Your task to perform on an android device: Search for sushi restaurants on Maps Image 0: 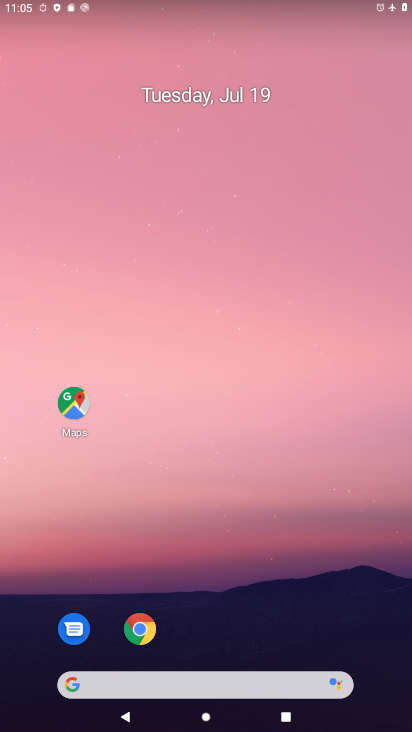
Step 0: click (205, 228)
Your task to perform on an android device: Search for sushi restaurants on Maps Image 1: 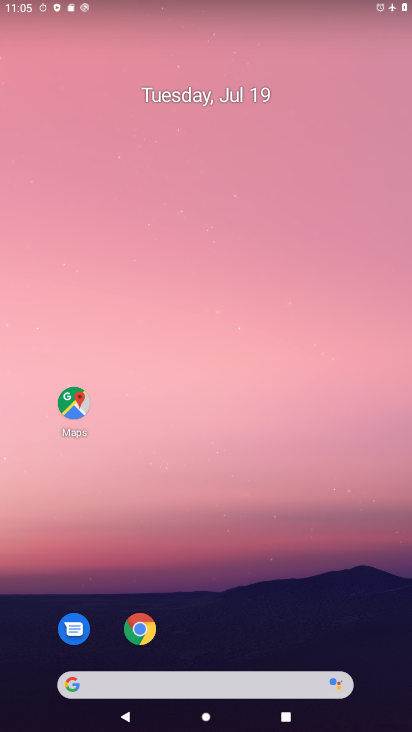
Step 1: drag from (231, 634) to (180, 152)
Your task to perform on an android device: Search for sushi restaurants on Maps Image 2: 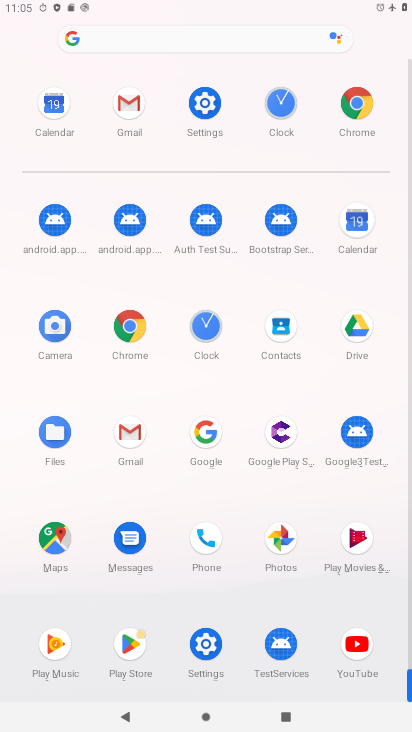
Step 2: click (50, 538)
Your task to perform on an android device: Search for sushi restaurants on Maps Image 3: 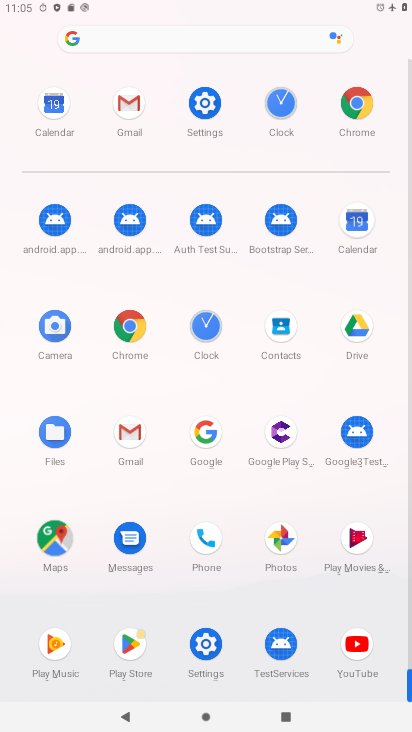
Step 3: click (51, 538)
Your task to perform on an android device: Search for sushi restaurants on Maps Image 4: 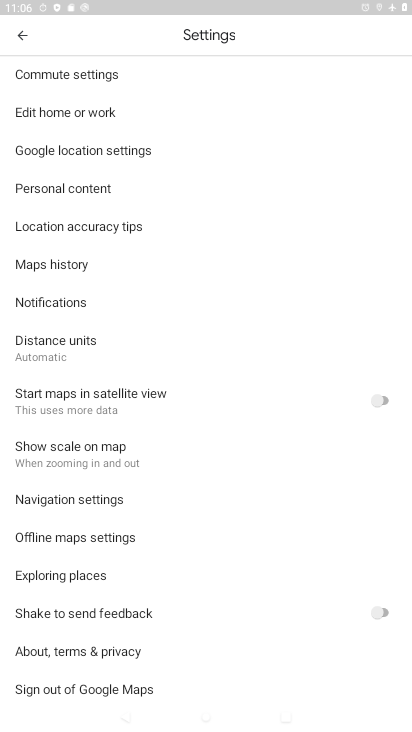
Step 4: click (22, 35)
Your task to perform on an android device: Search for sushi restaurants on Maps Image 5: 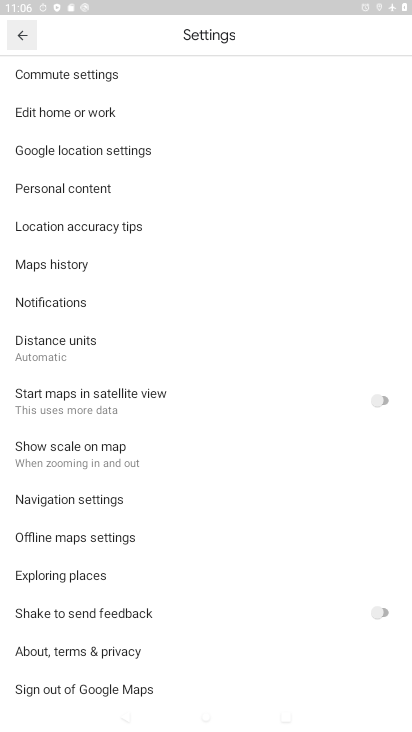
Step 5: click (22, 35)
Your task to perform on an android device: Search for sushi restaurants on Maps Image 6: 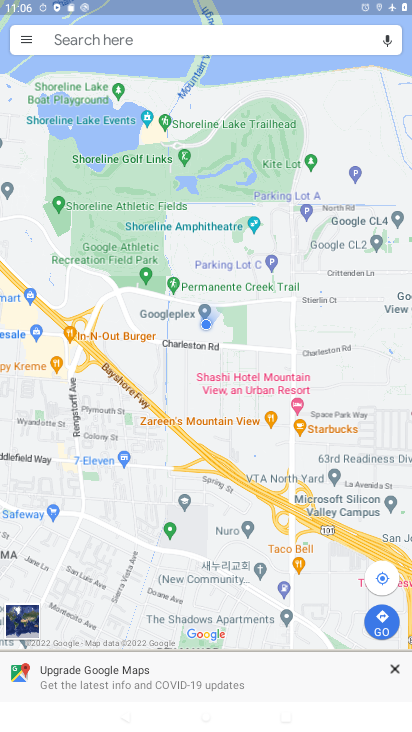
Step 6: click (72, 38)
Your task to perform on an android device: Search for sushi restaurants on Maps Image 7: 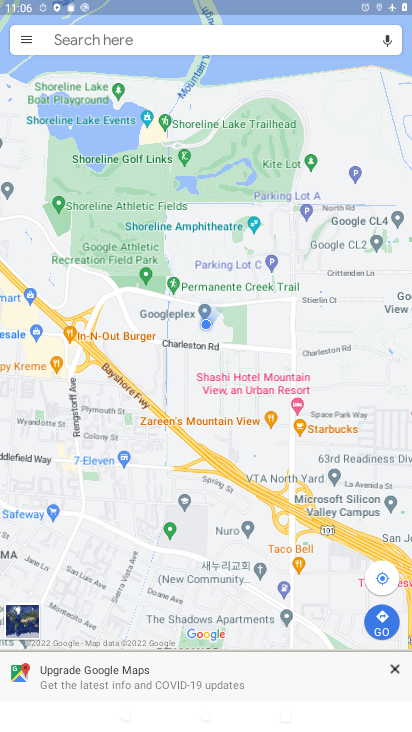
Step 7: click (70, 36)
Your task to perform on an android device: Search for sushi restaurants on Maps Image 8: 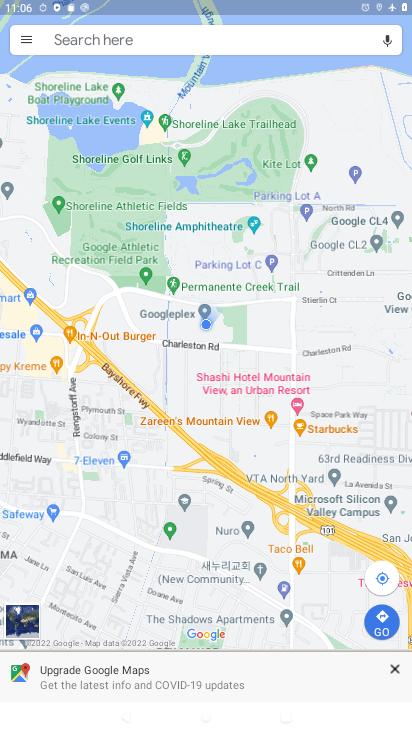
Step 8: click (70, 36)
Your task to perform on an android device: Search for sushi restaurants on Maps Image 9: 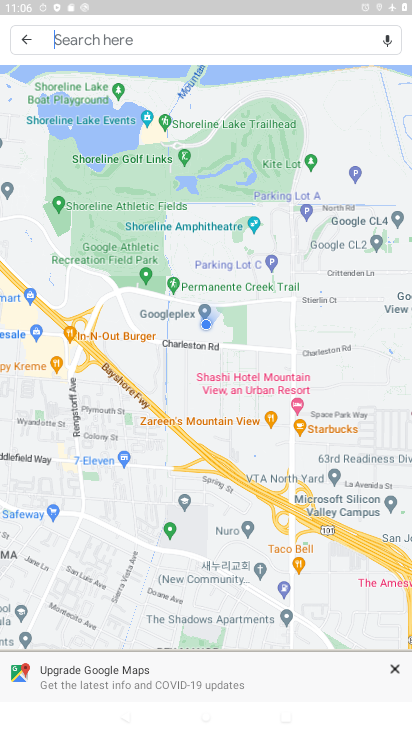
Step 9: click (68, 43)
Your task to perform on an android device: Search for sushi restaurants on Maps Image 10: 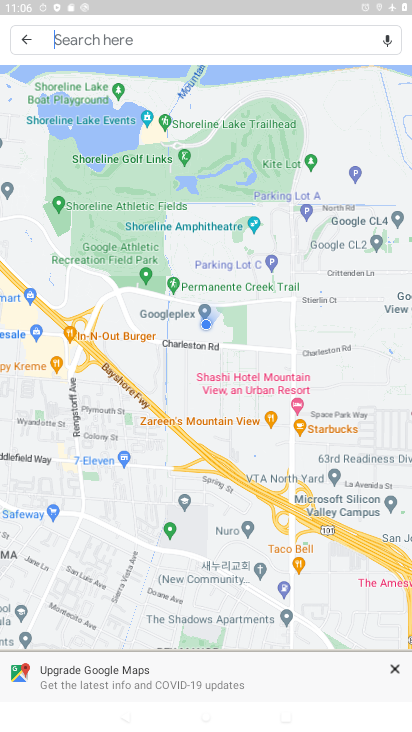
Step 10: click (68, 43)
Your task to perform on an android device: Search for sushi restaurants on Maps Image 11: 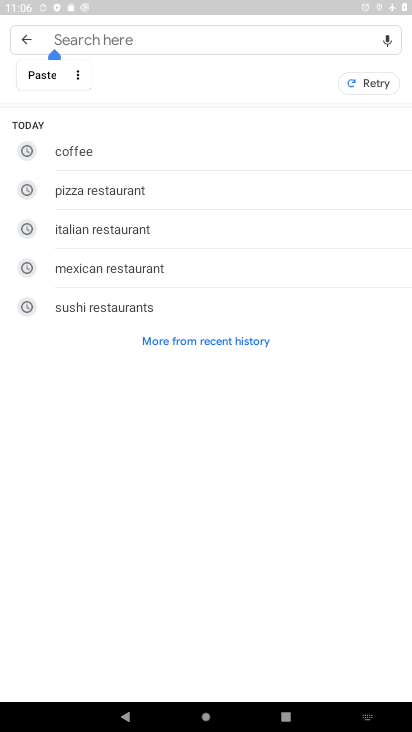
Step 11: click (123, 302)
Your task to perform on an android device: Search for sushi restaurants on Maps Image 12: 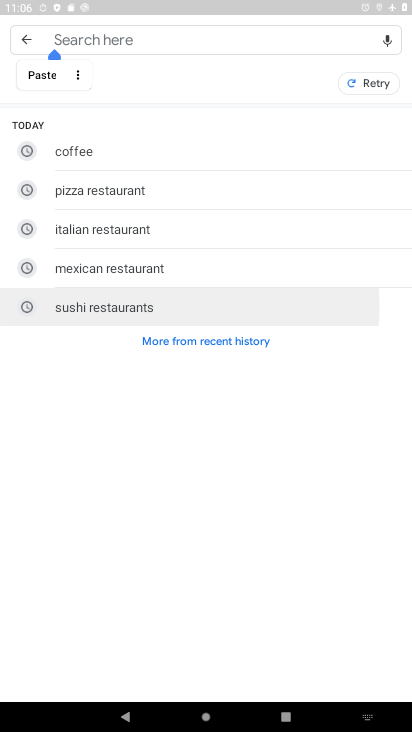
Step 12: click (122, 301)
Your task to perform on an android device: Search for sushi restaurants on Maps Image 13: 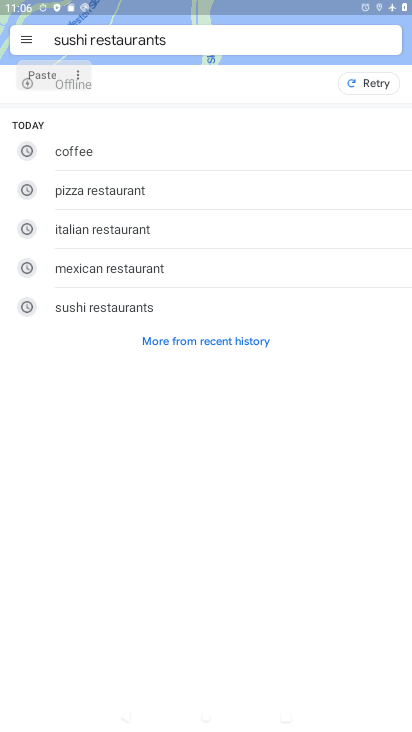
Step 13: click (123, 301)
Your task to perform on an android device: Search for sushi restaurants on Maps Image 14: 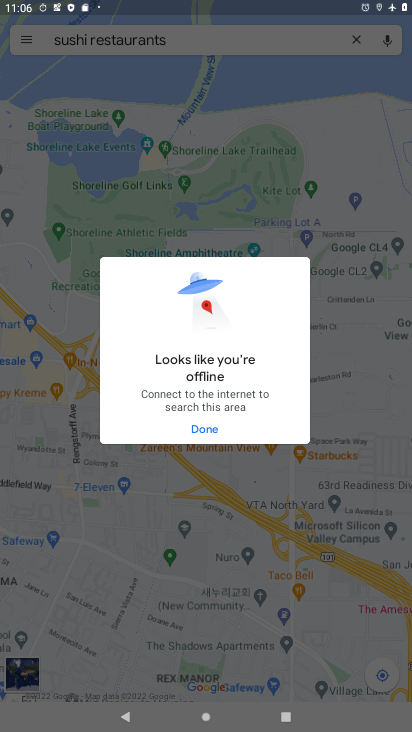
Step 14: task complete